Your task to perform on an android device: Open the Play Movies app and select the watchlist tab. Image 0: 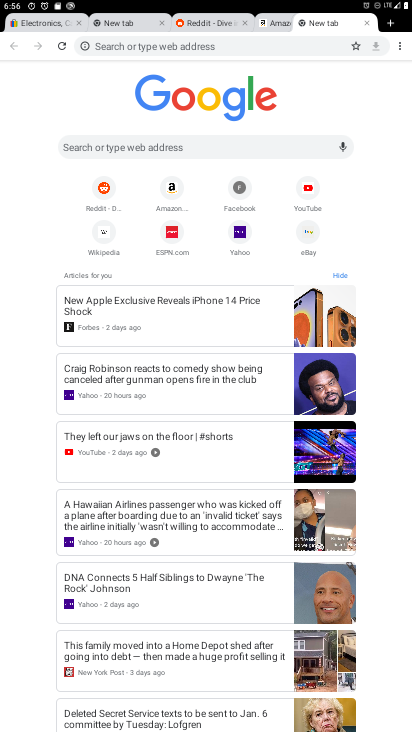
Step 0: press home button
Your task to perform on an android device: Open the Play Movies app and select the watchlist tab. Image 1: 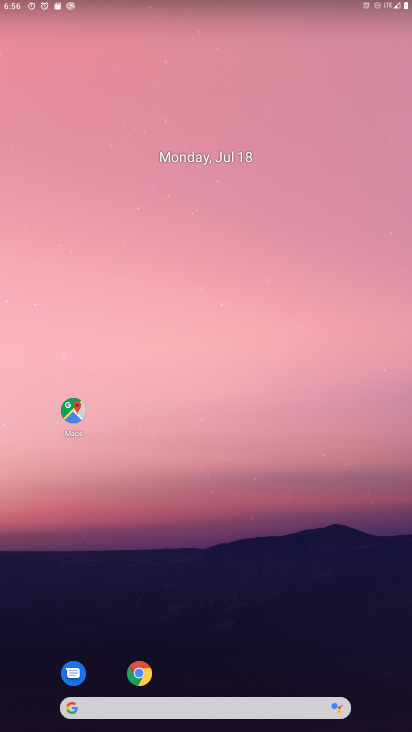
Step 1: drag from (251, 594) to (296, 212)
Your task to perform on an android device: Open the Play Movies app and select the watchlist tab. Image 2: 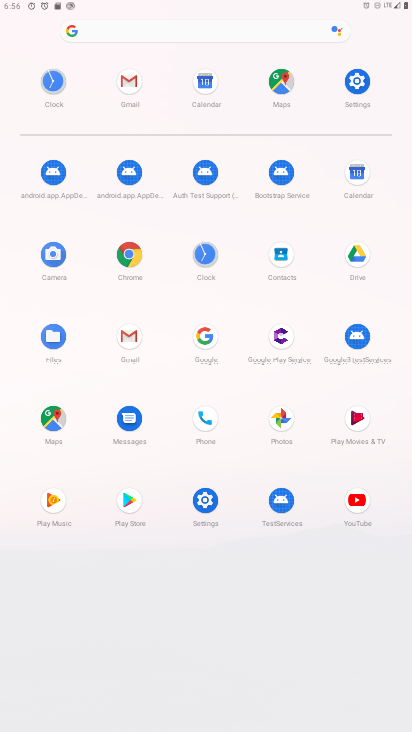
Step 2: click (352, 418)
Your task to perform on an android device: Open the Play Movies app and select the watchlist tab. Image 3: 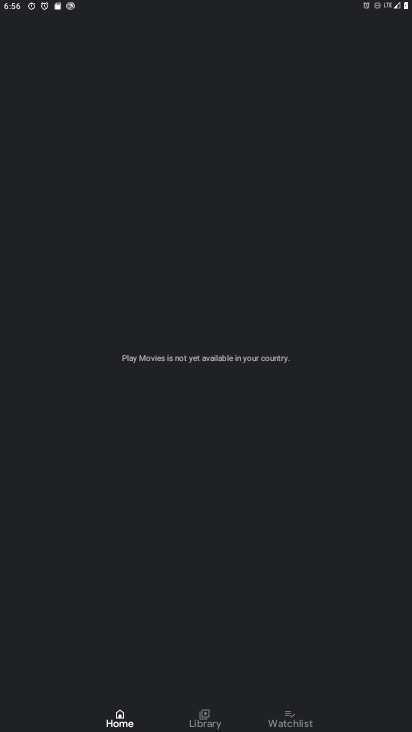
Step 3: click (293, 715)
Your task to perform on an android device: Open the Play Movies app and select the watchlist tab. Image 4: 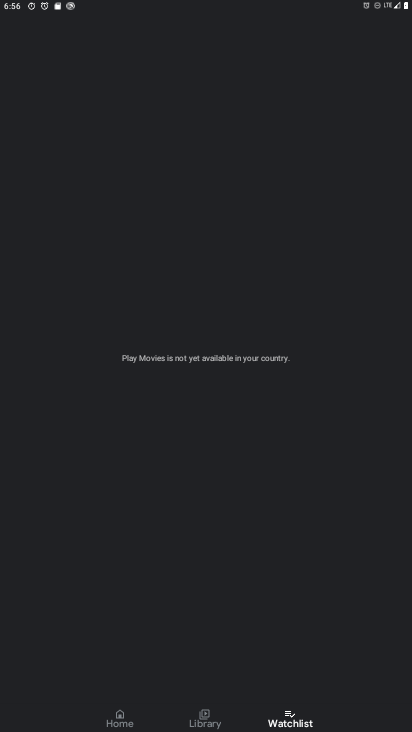
Step 4: task complete